Your task to perform on an android device: Open the map Image 0: 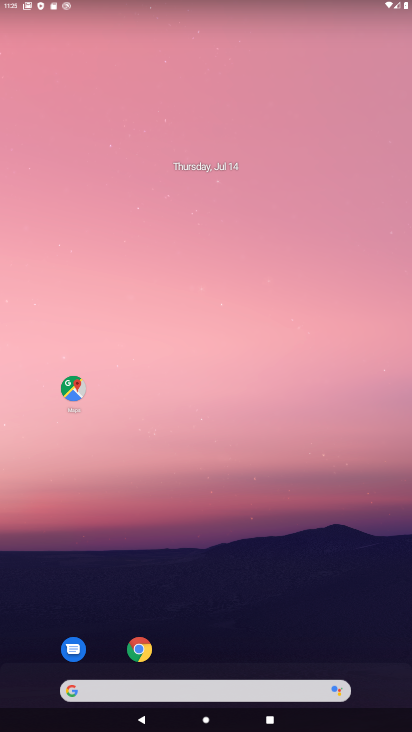
Step 0: drag from (228, 679) to (358, 81)
Your task to perform on an android device: Open the map Image 1: 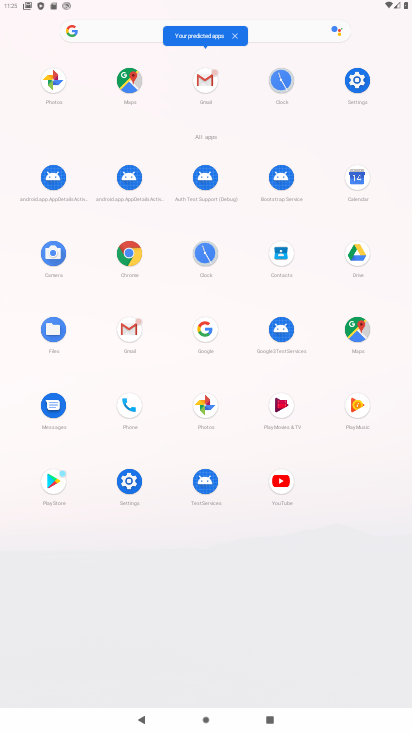
Step 1: click (365, 330)
Your task to perform on an android device: Open the map Image 2: 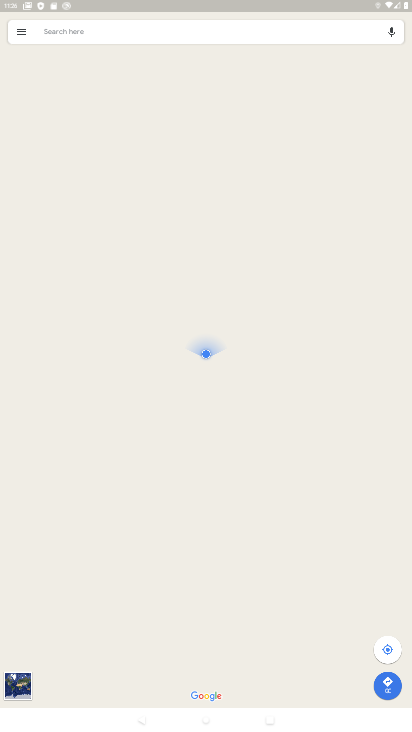
Step 2: task complete